Your task to perform on an android device: open chrome and create a bookmark for the current page Image 0: 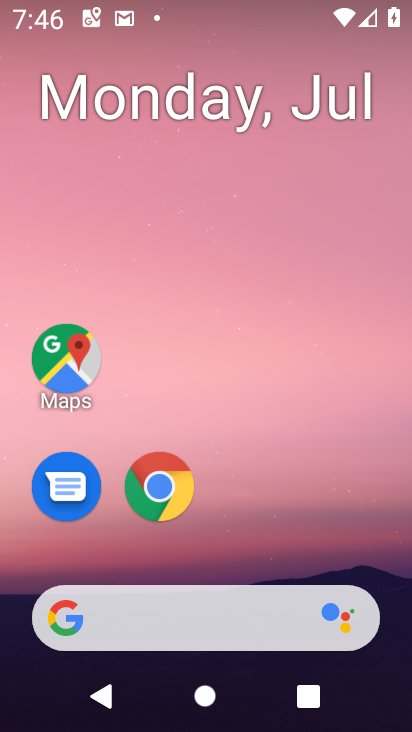
Step 0: drag from (377, 559) to (369, 117)
Your task to perform on an android device: open chrome and create a bookmark for the current page Image 1: 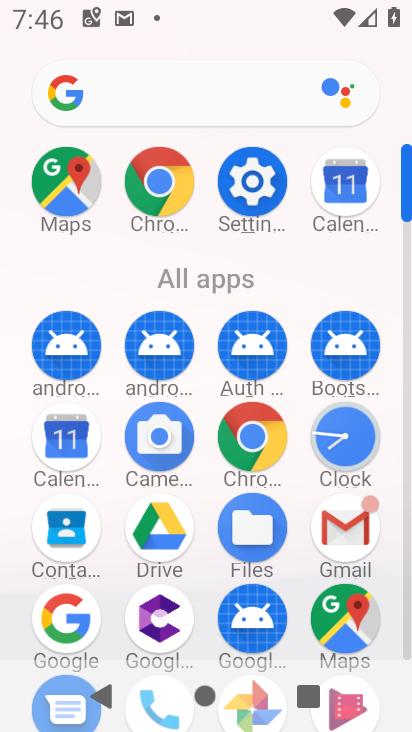
Step 1: click (256, 423)
Your task to perform on an android device: open chrome and create a bookmark for the current page Image 2: 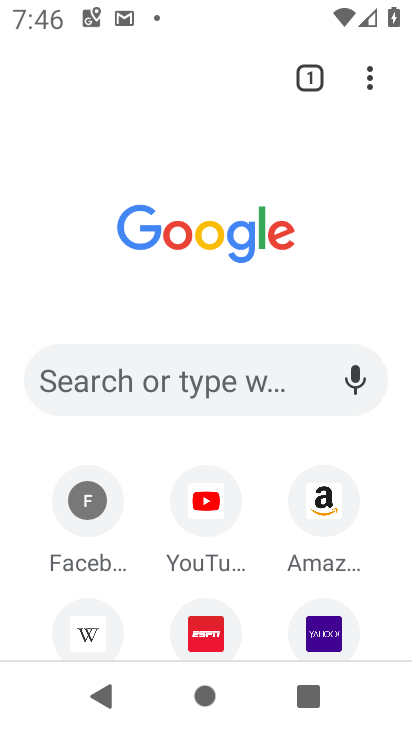
Step 2: click (369, 90)
Your task to perform on an android device: open chrome and create a bookmark for the current page Image 3: 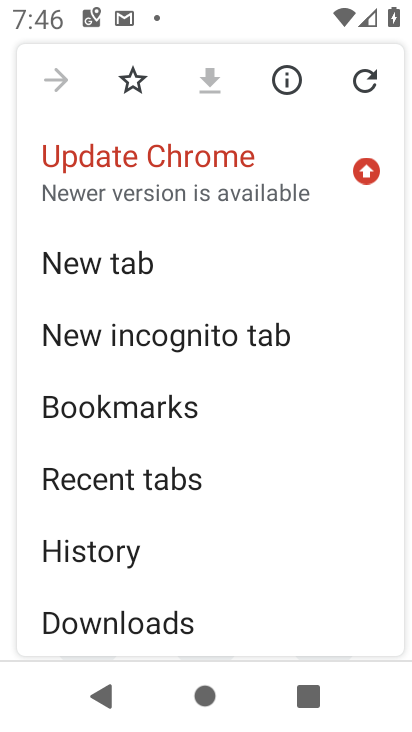
Step 3: click (131, 78)
Your task to perform on an android device: open chrome and create a bookmark for the current page Image 4: 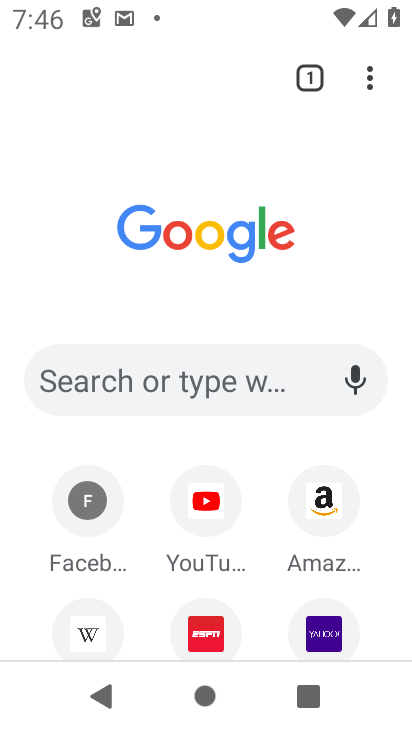
Step 4: task complete